Your task to perform on an android device: change the clock style Image 0: 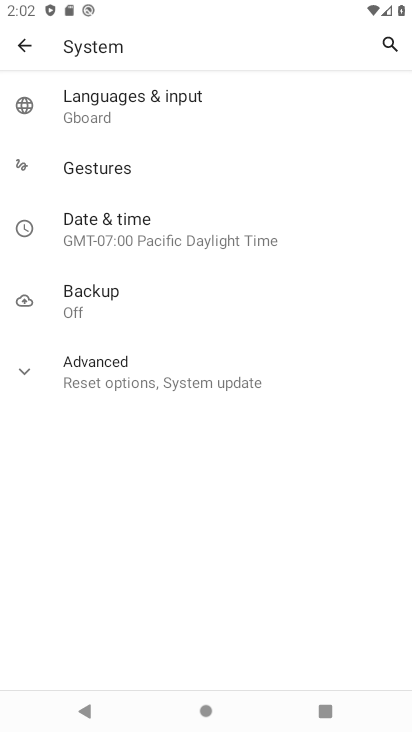
Step 0: press home button
Your task to perform on an android device: change the clock style Image 1: 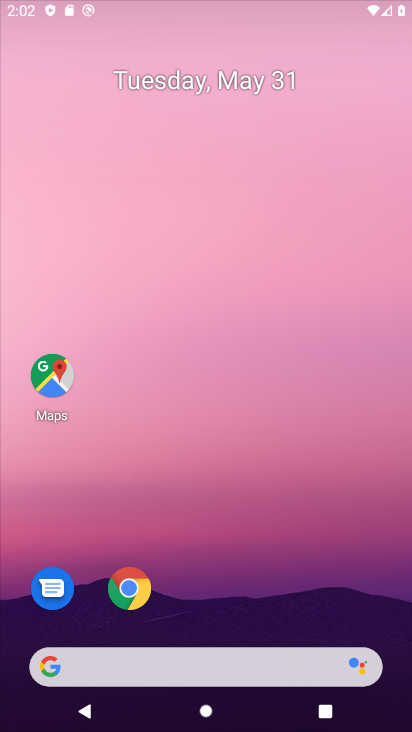
Step 1: drag from (144, 730) to (146, 98)
Your task to perform on an android device: change the clock style Image 2: 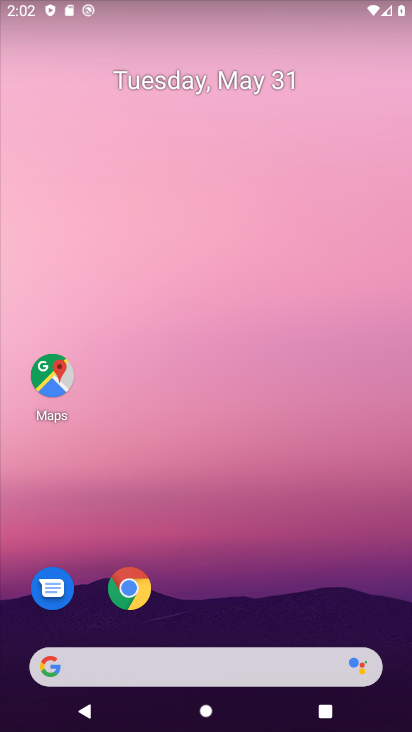
Step 2: drag from (153, 728) to (181, 77)
Your task to perform on an android device: change the clock style Image 3: 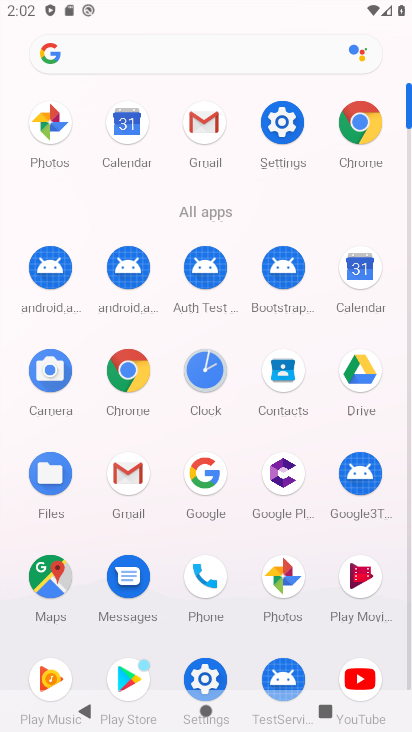
Step 3: click (202, 381)
Your task to perform on an android device: change the clock style Image 4: 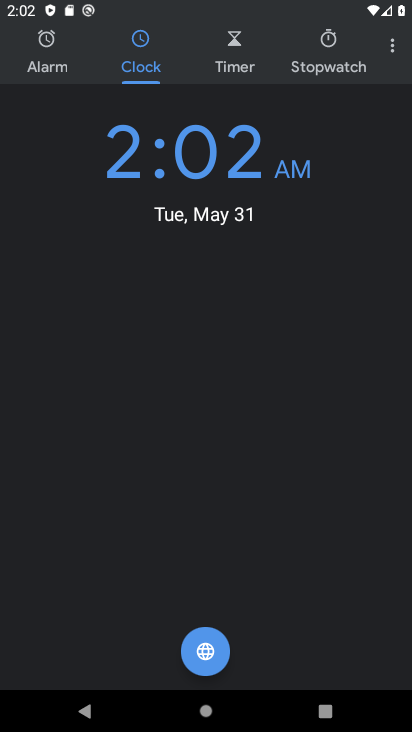
Step 4: click (397, 46)
Your task to perform on an android device: change the clock style Image 5: 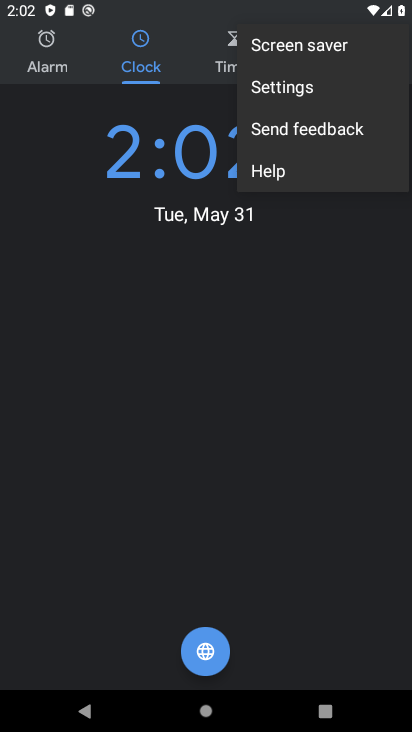
Step 5: click (330, 85)
Your task to perform on an android device: change the clock style Image 6: 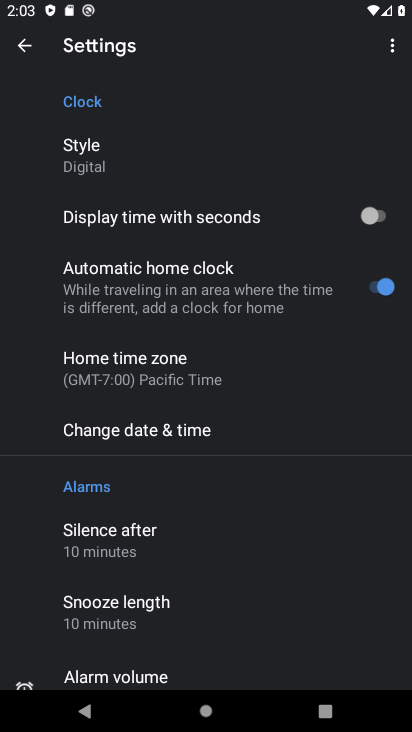
Step 6: click (76, 160)
Your task to perform on an android device: change the clock style Image 7: 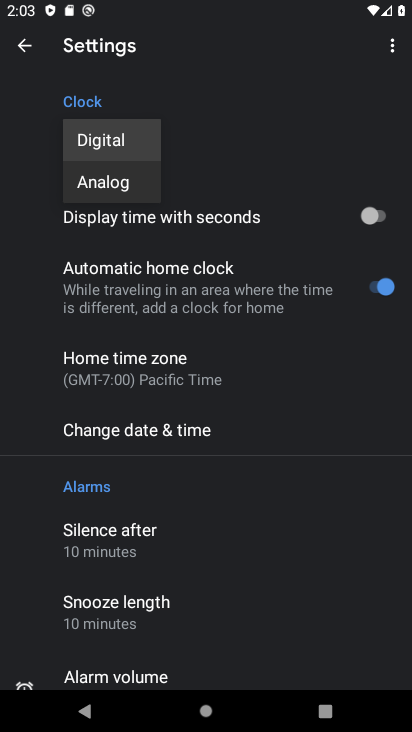
Step 7: click (123, 194)
Your task to perform on an android device: change the clock style Image 8: 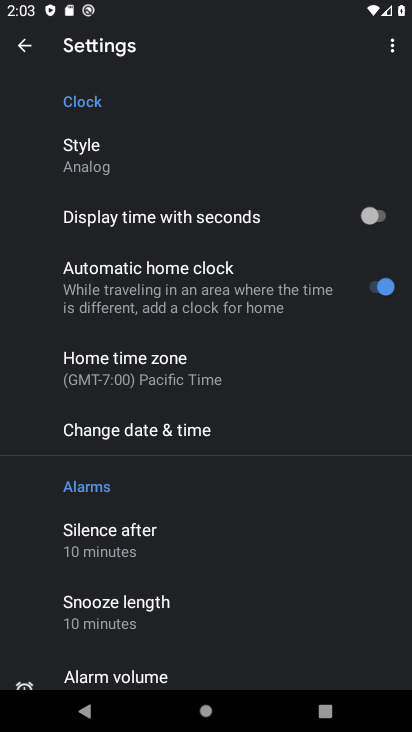
Step 8: task complete